Your task to perform on an android device: empty trash in google photos Image 0: 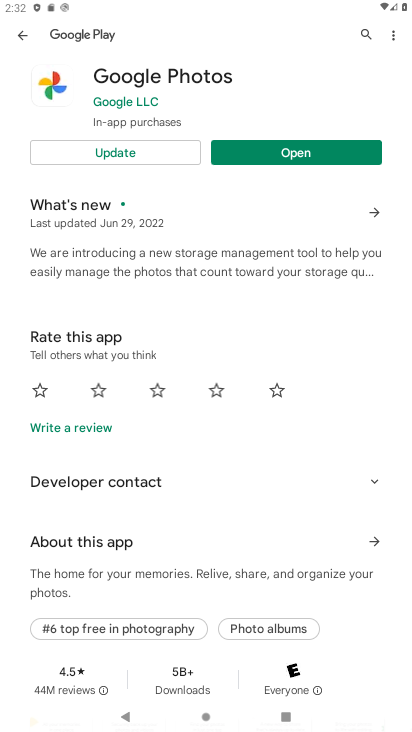
Step 0: press home button
Your task to perform on an android device: empty trash in google photos Image 1: 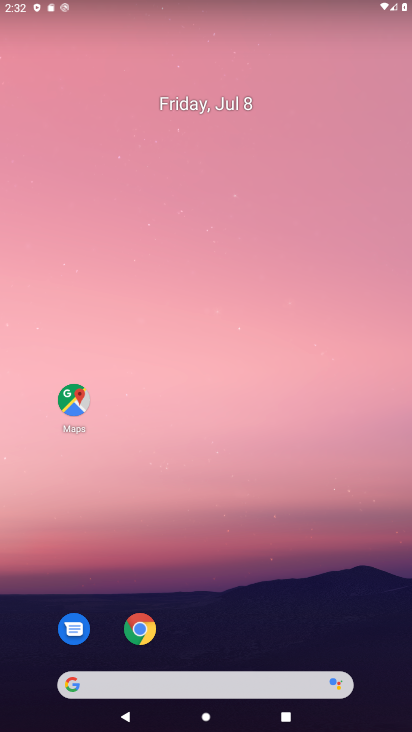
Step 1: drag from (136, 542) to (316, 7)
Your task to perform on an android device: empty trash in google photos Image 2: 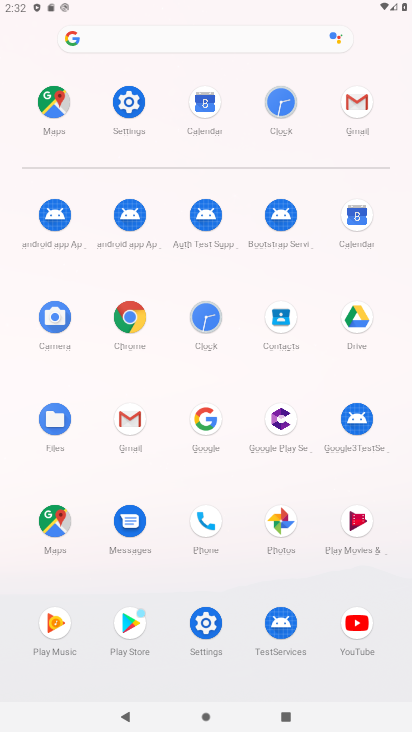
Step 2: click (274, 531)
Your task to perform on an android device: empty trash in google photos Image 3: 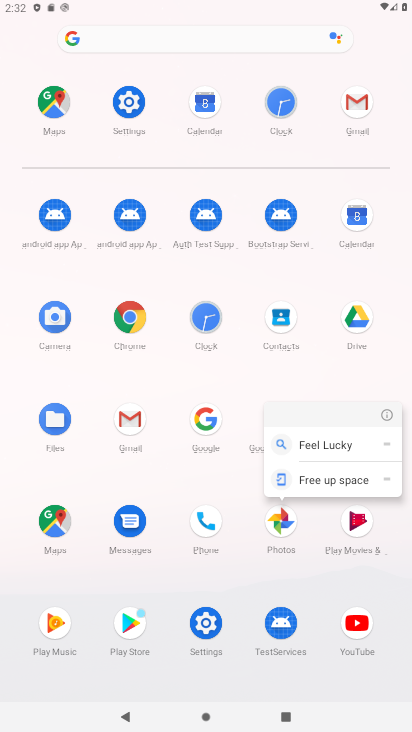
Step 3: click (267, 538)
Your task to perform on an android device: empty trash in google photos Image 4: 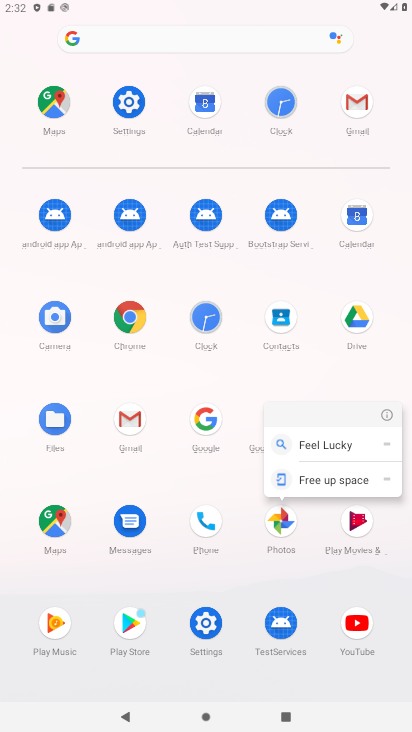
Step 4: click (270, 519)
Your task to perform on an android device: empty trash in google photos Image 5: 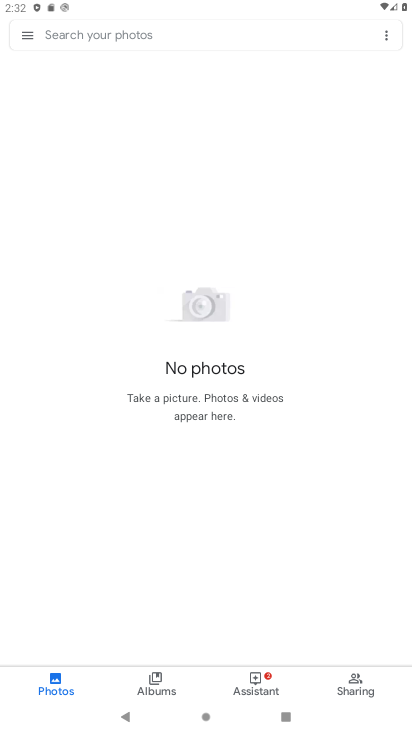
Step 5: click (23, 44)
Your task to perform on an android device: empty trash in google photos Image 6: 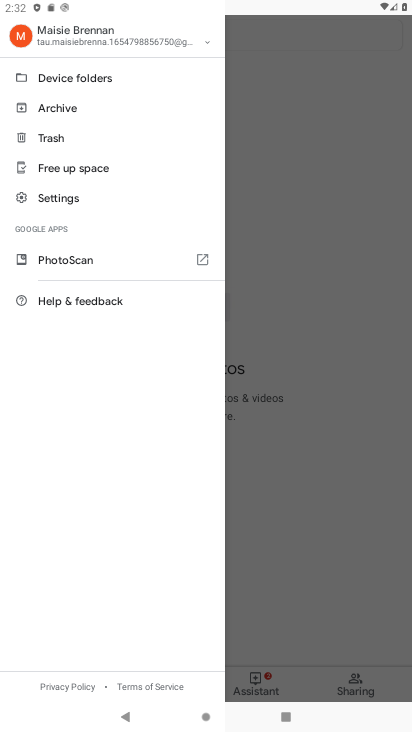
Step 6: click (292, 295)
Your task to perform on an android device: empty trash in google photos Image 7: 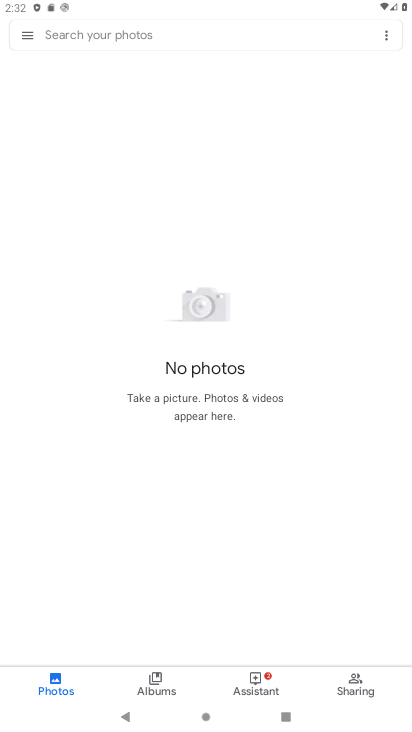
Step 7: click (46, 33)
Your task to perform on an android device: empty trash in google photos Image 8: 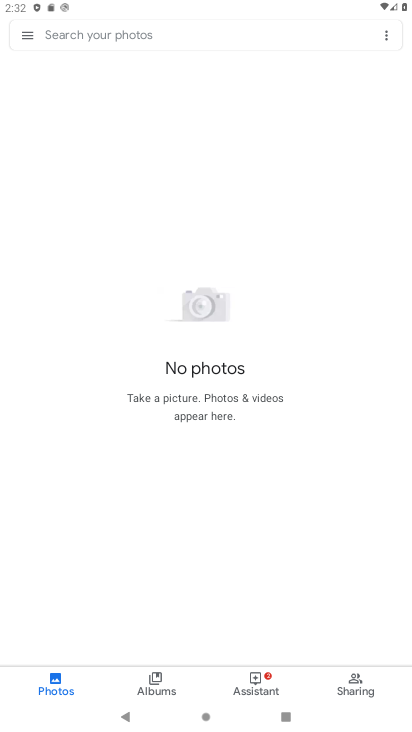
Step 8: click (33, 32)
Your task to perform on an android device: empty trash in google photos Image 9: 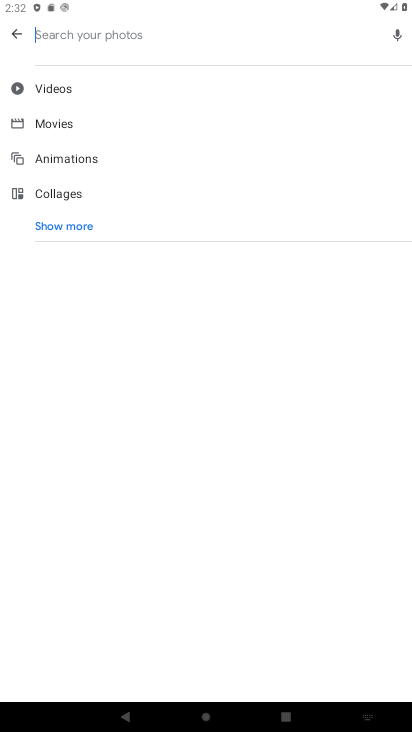
Step 9: click (14, 30)
Your task to perform on an android device: empty trash in google photos Image 10: 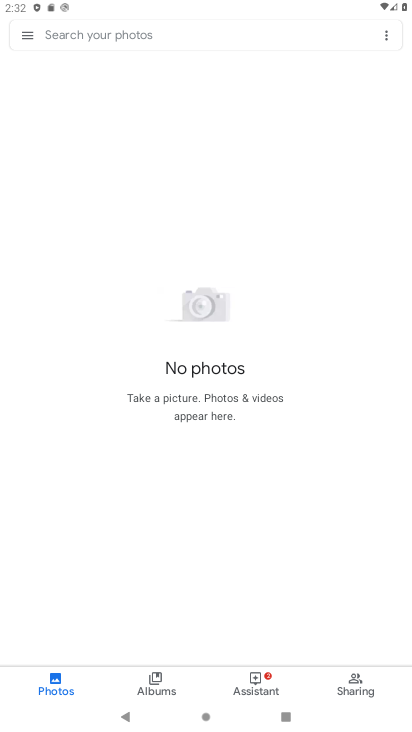
Step 10: click (20, 32)
Your task to perform on an android device: empty trash in google photos Image 11: 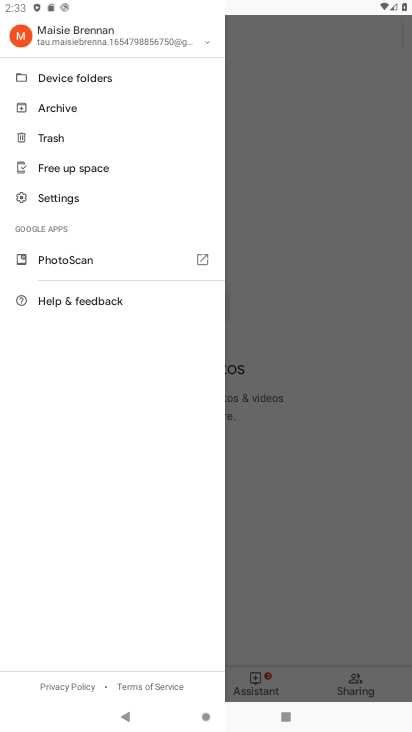
Step 11: click (52, 132)
Your task to perform on an android device: empty trash in google photos Image 12: 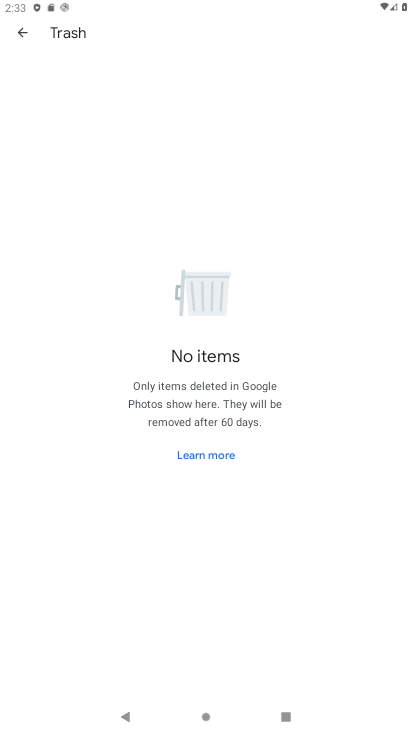
Step 12: task complete